Your task to perform on an android device: Search for "rayovac triple a" on newegg.com, select the first entry, and add it to the cart. Image 0: 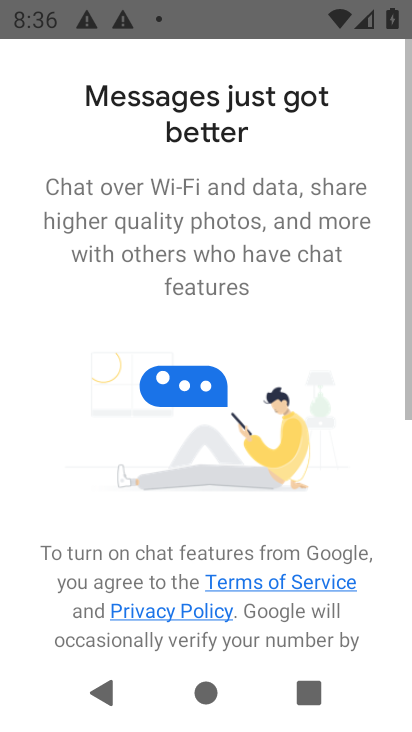
Step 0: press home button
Your task to perform on an android device: Search for "rayovac triple a" on newegg.com, select the first entry, and add it to the cart. Image 1: 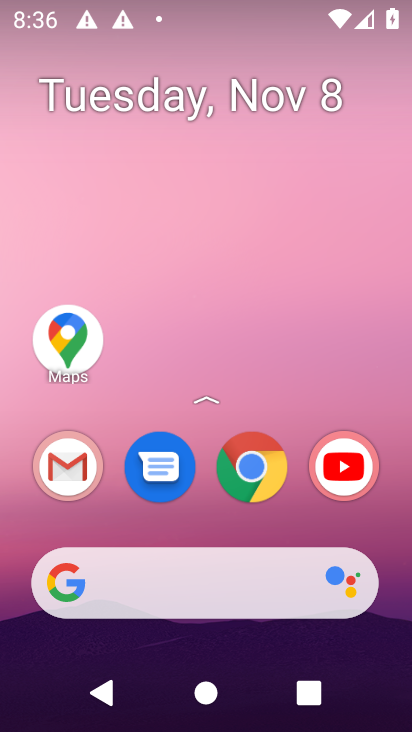
Step 1: click (204, 590)
Your task to perform on an android device: Search for "rayovac triple a" on newegg.com, select the first entry, and add it to the cart. Image 2: 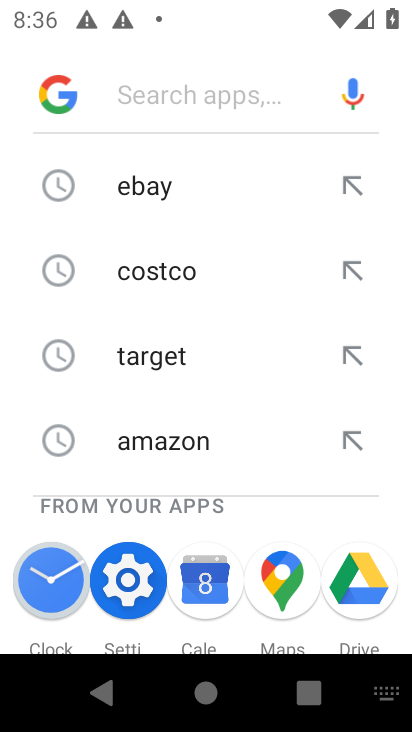
Step 2: type "newegg"
Your task to perform on an android device: Search for "rayovac triple a" on newegg.com, select the first entry, and add it to the cart. Image 3: 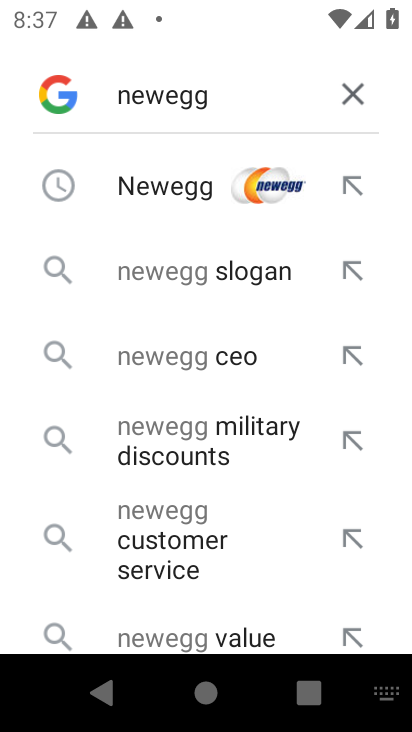
Step 3: click (177, 190)
Your task to perform on an android device: Search for "rayovac triple a" on newegg.com, select the first entry, and add it to the cart. Image 4: 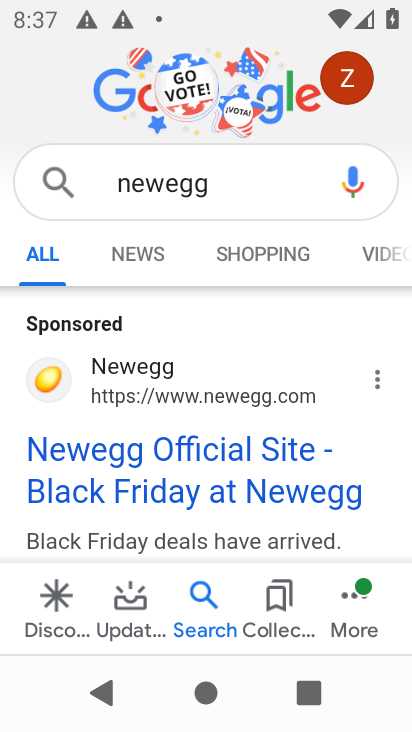
Step 4: click (88, 453)
Your task to perform on an android device: Search for "rayovac triple a" on newegg.com, select the first entry, and add it to the cart. Image 5: 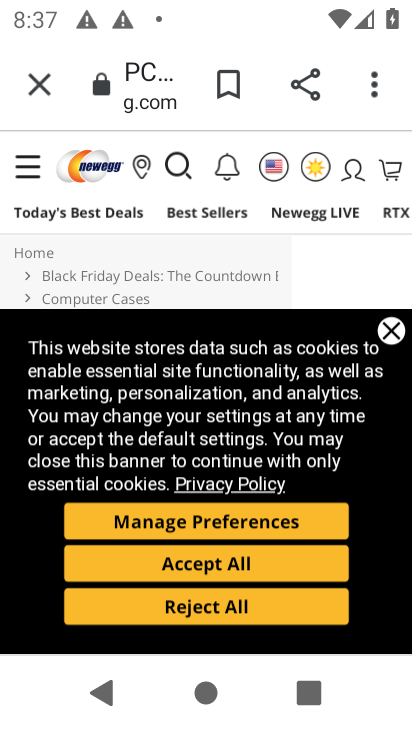
Step 5: click (280, 561)
Your task to perform on an android device: Search for "rayovac triple a" on newegg.com, select the first entry, and add it to the cart. Image 6: 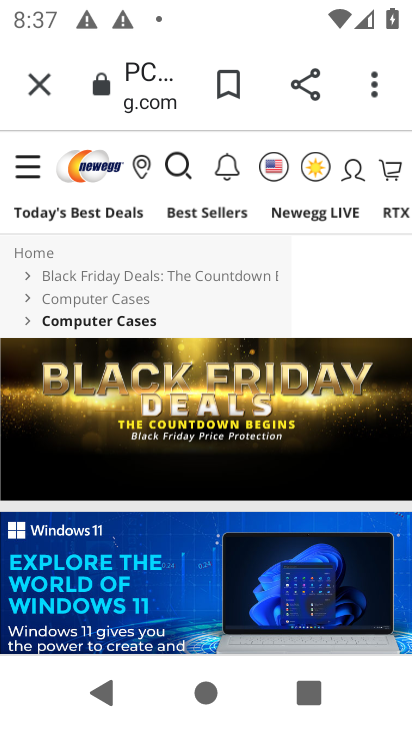
Step 6: task complete